Your task to perform on an android device: Do I have any events tomorrow? Image 0: 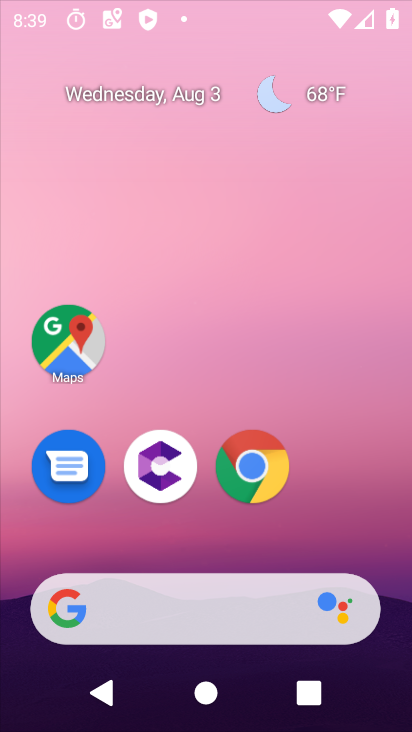
Step 0: click (345, 44)
Your task to perform on an android device: Do I have any events tomorrow? Image 1: 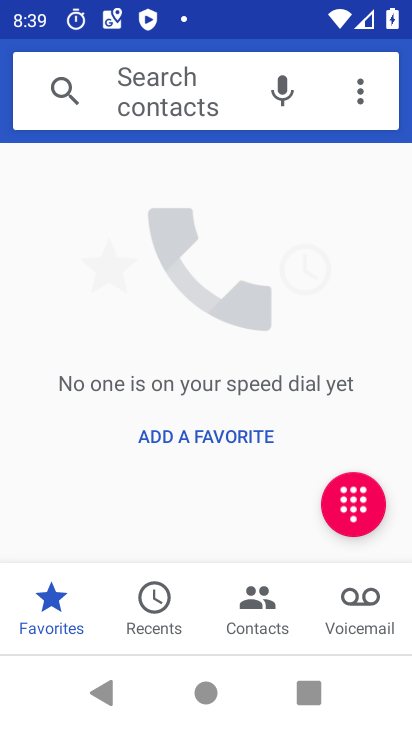
Step 1: press home button
Your task to perform on an android device: Do I have any events tomorrow? Image 2: 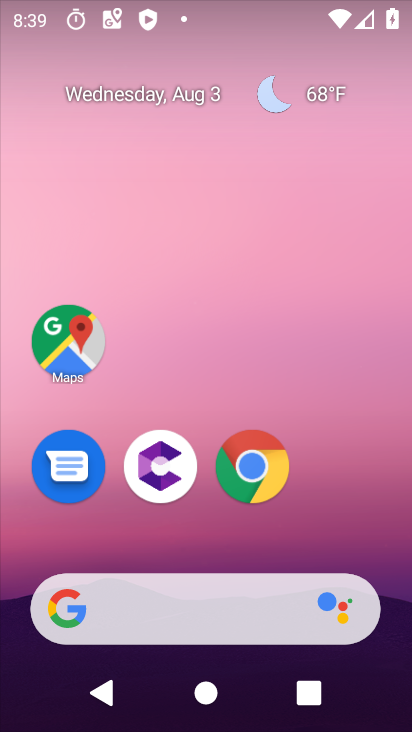
Step 2: drag from (357, 496) to (328, 87)
Your task to perform on an android device: Do I have any events tomorrow? Image 3: 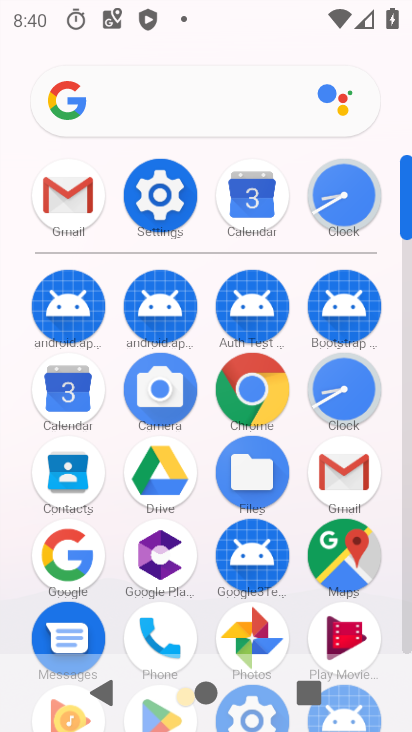
Step 3: click (76, 393)
Your task to perform on an android device: Do I have any events tomorrow? Image 4: 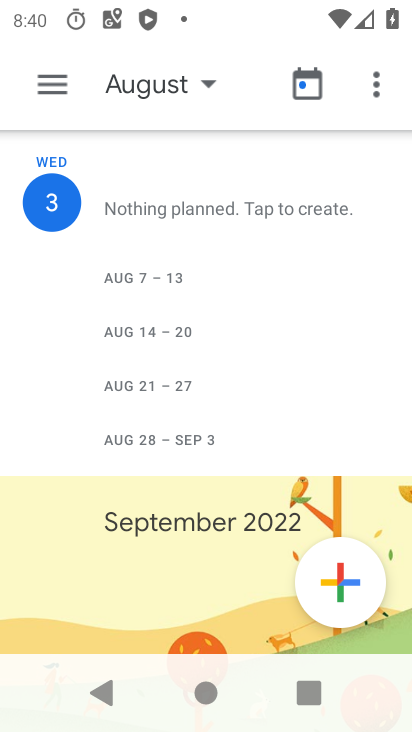
Step 4: click (162, 89)
Your task to perform on an android device: Do I have any events tomorrow? Image 5: 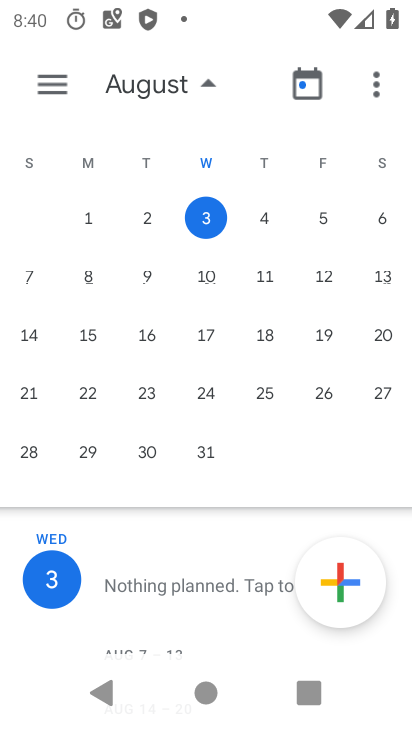
Step 5: click (281, 222)
Your task to perform on an android device: Do I have any events tomorrow? Image 6: 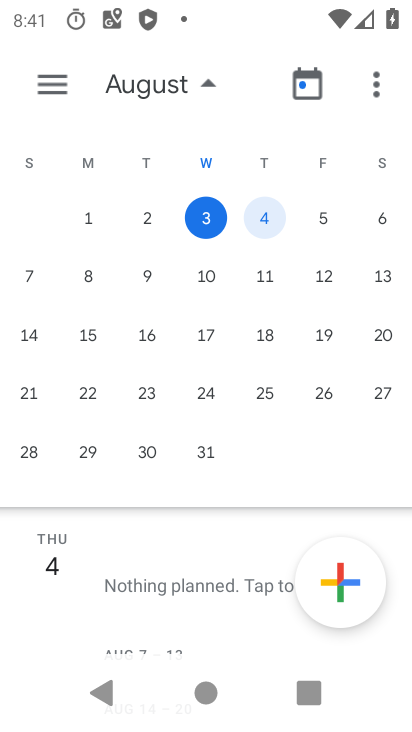
Step 6: click (267, 223)
Your task to perform on an android device: Do I have any events tomorrow? Image 7: 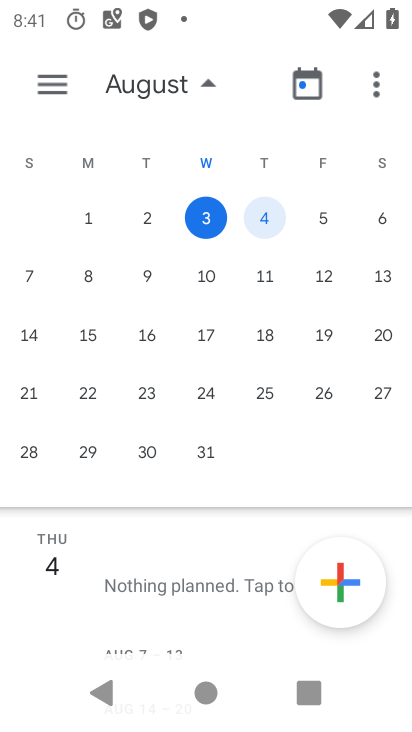
Step 7: click (267, 214)
Your task to perform on an android device: Do I have any events tomorrow? Image 8: 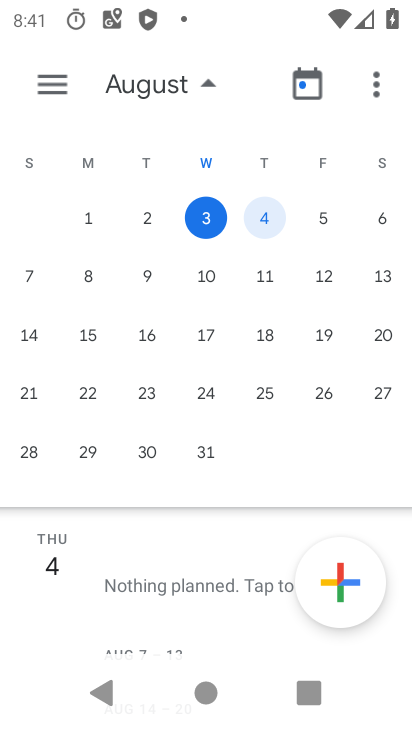
Step 8: click (267, 213)
Your task to perform on an android device: Do I have any events tomorrow? Image 9: 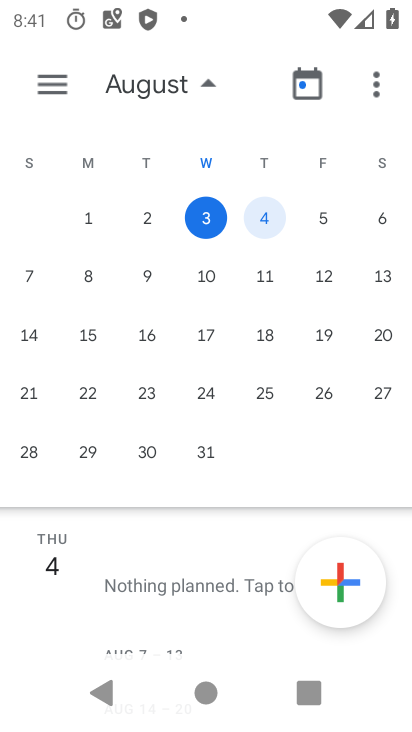
Step 9: click (267, 213)
Your task to perform on an android device: Do I have any events tomorrow? Image 10: 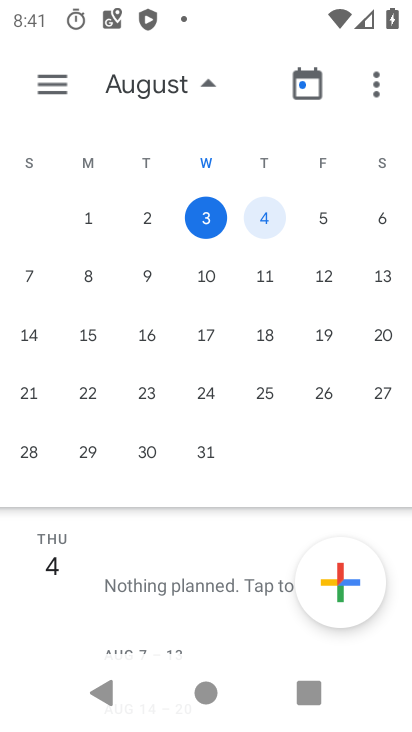
Step 10: task complete